Your task to perform on an android device: Open the calendar app, open the side menu, and click the "Day" option Image 0: 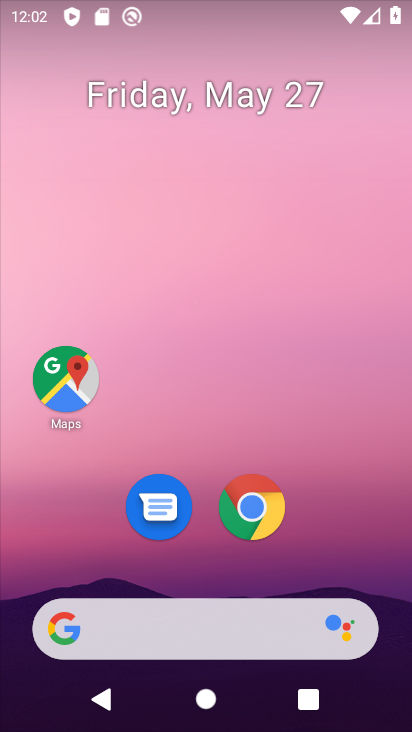
Step 0: drag from (313, 565) to (319, 203)
Your task to perform on an android device: Open the calendar app, open the side menu, and click the "Day" option Image 1: 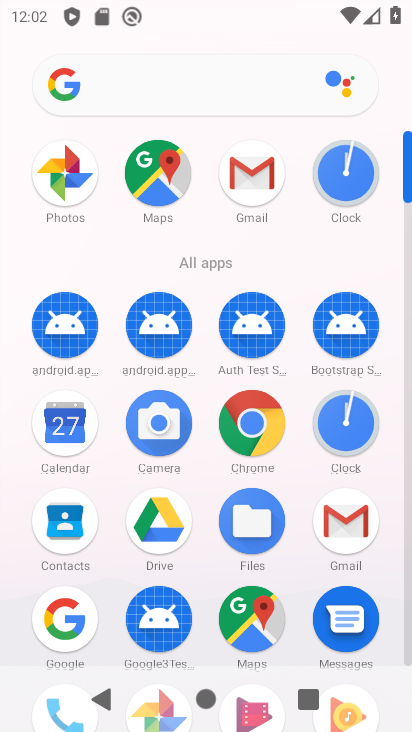
Step 1: click (59, 443)
Your task to perform on an android device: Open the calendar app, open the side menu, and click the "Day" option Image 2: 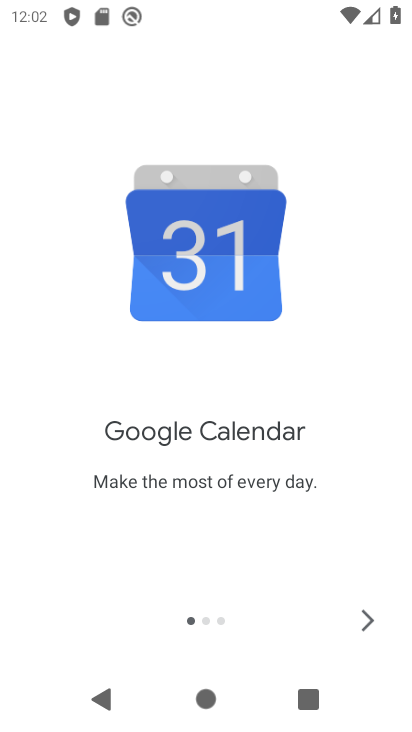
Step 2: click (359, 622)
Your task to perform on an android device: Open the calendar app, open the side menu, and click the "Day" option Image 3: 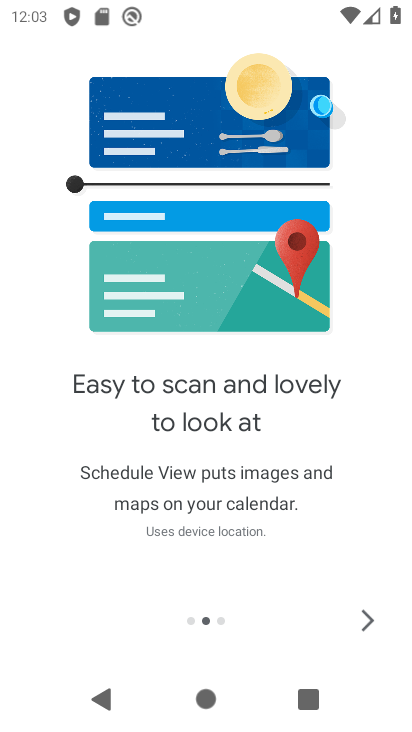
Step 3: click (362, 622)
Your task to perform on an android device: Open the calendar app, open the side menu, and click the "Day" option Image 4: 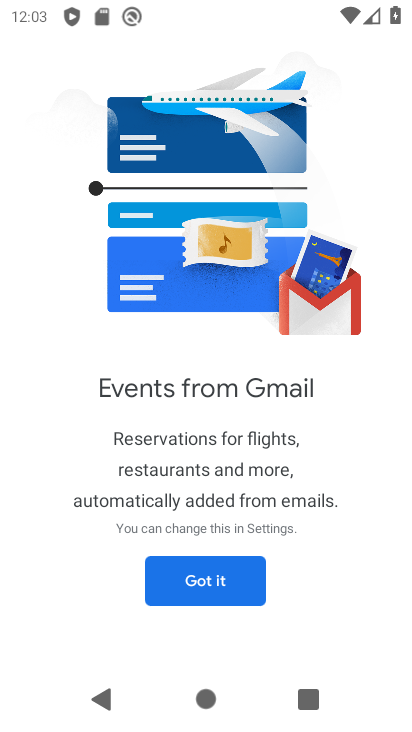
Step 4: click (226, 577)
Your task to perform on an android device: Open the calendar app, open the side menu, and click the "Day" option Image 5: 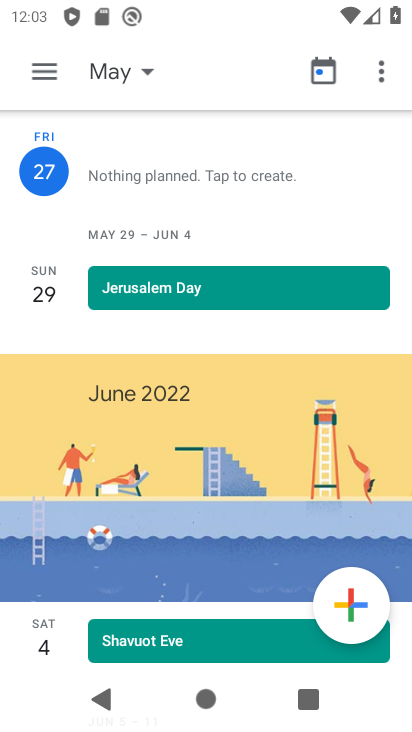
Step 5: click (46, 83)
Your task to perform on an android device: Open the calendar app, open the side menu, and click the "Day" option Image 6: 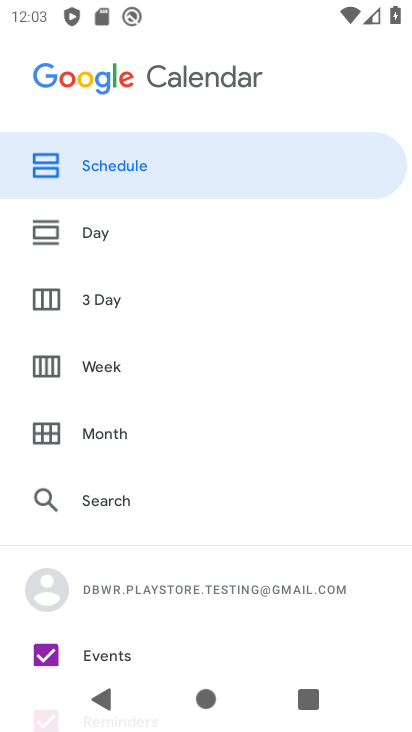
Step 6: click (77, 234)
Your task to perform on an android device: Open the calendar app, open the side menu, and click the "Day" option Image 7: 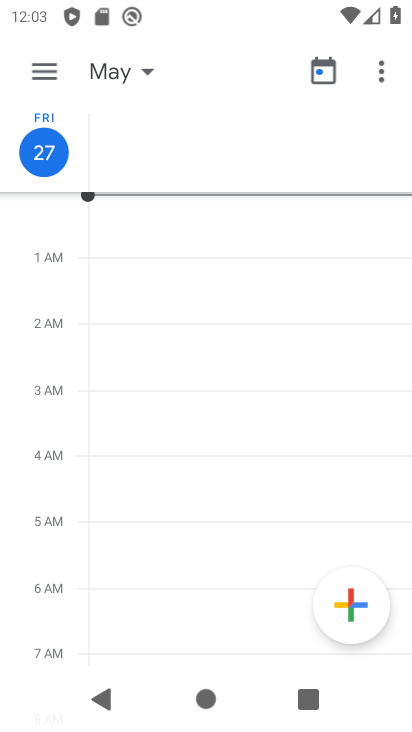
Step 7: click (43, 72)
Your task to perform on an android device: Open the calendar app, open the side menu, and click the "Day" option Image 8: 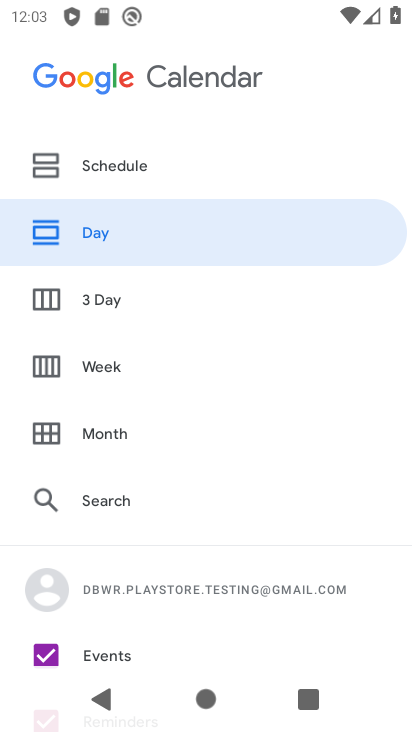
Step 8: task complete